Your task to perform on an android device: What's the weather? Image 0: 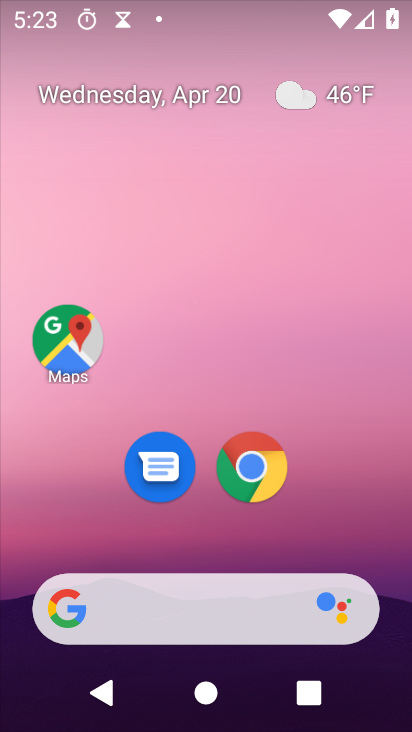
Step 0: click (334, 94)
Your task to perform on an android device: What's the weather? Image 1: 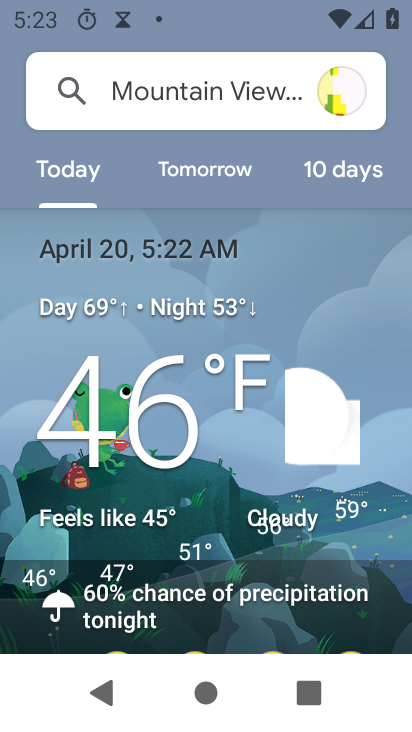
Step 1: task complete